Your task to perform on an android device: What's on my calendar today? Image 0: 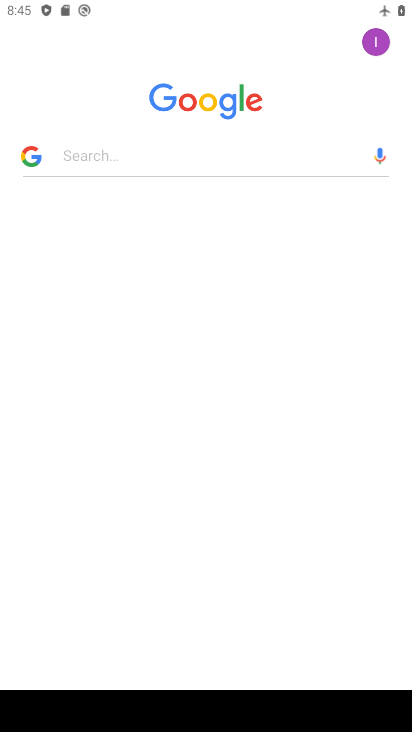
Step 0: press home button
Your task to perform on an android device: What's on my calendar today? Image 1: 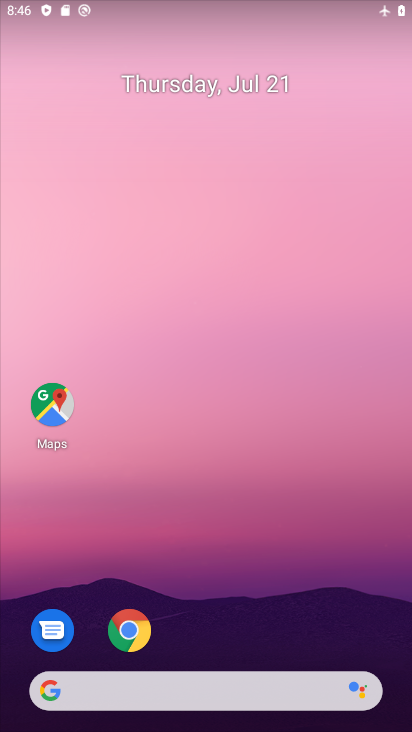
Step 1: drag from (153, 646) to (174, 136)
Your task to perform on an android device: What's on my calendar today? Image 2: 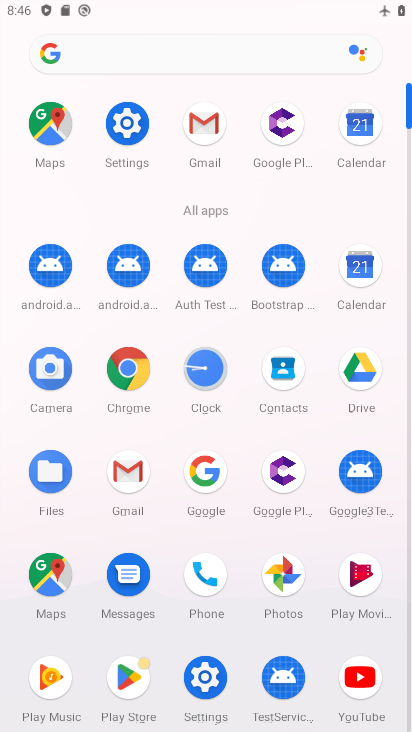
Step 2: click (354, 266)
Your task to perform on an android device: What's on my calendar today? Image 3: 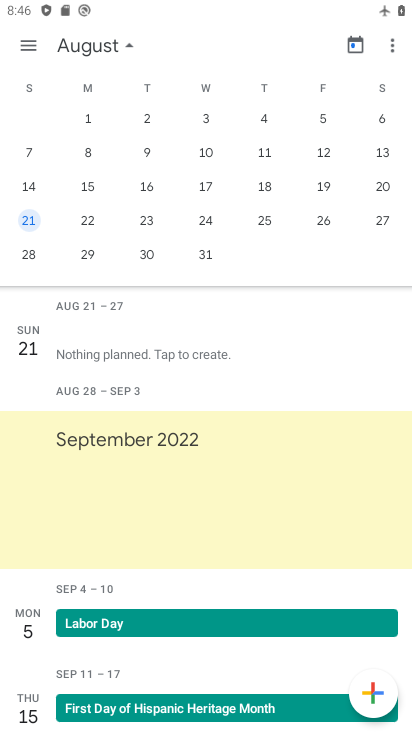
Step 3: drag from (3, 166) to (372, 191)
Your task to perform on an android device: What's on my calendar today? Image 4: 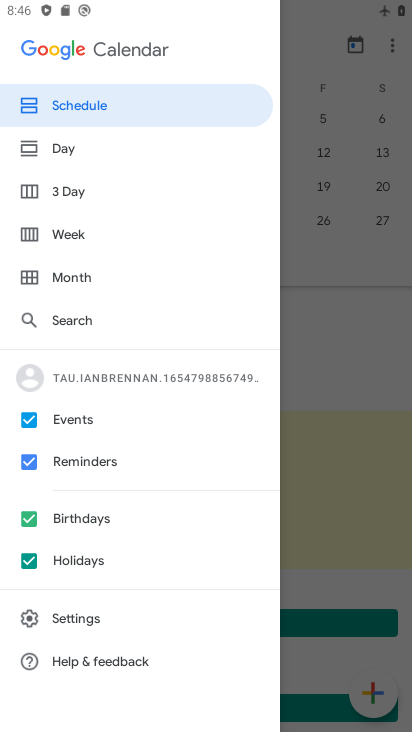
Step 4: click (321, 274)
Your task to perform on an android device: What's on my calendar today? Image 5: 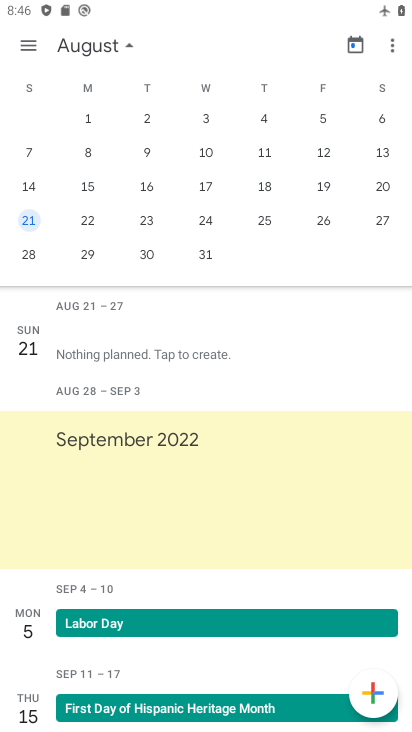
Step 5: drag from (22, 141) to (383, 139)
Your task to perform on an android device: What's on my calendar today? Image 6: 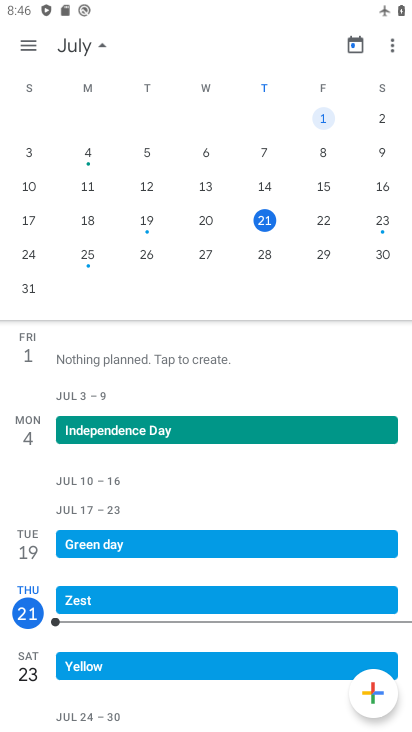
Step 6: click (258, 219)
Your task to perform on an android device: What's on my calendar today? Image 7: 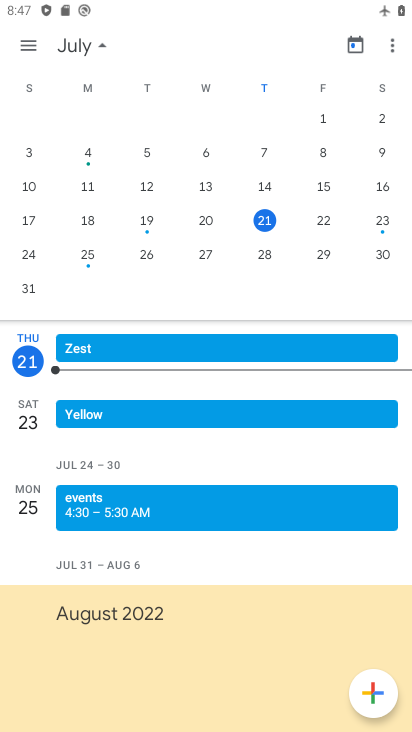
Step 7: click (29, 41)
Your task to perform on an android device: What's on my calendar today? Image 8: 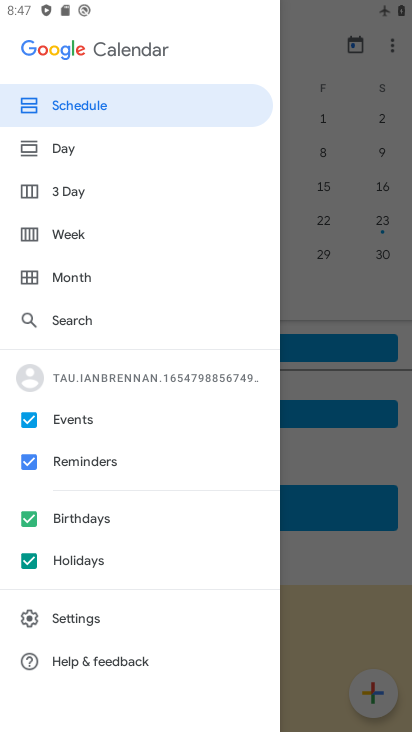
Step 8: click (177, 100)
Your task to perform on an android device: What's on my calendar today? Image 9: 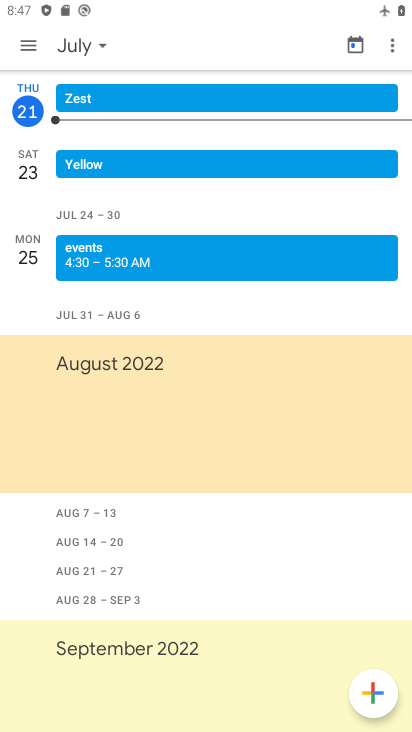
Step 9: task complete